Your task to perform on an android device: star an email in the gmail app Image 0: 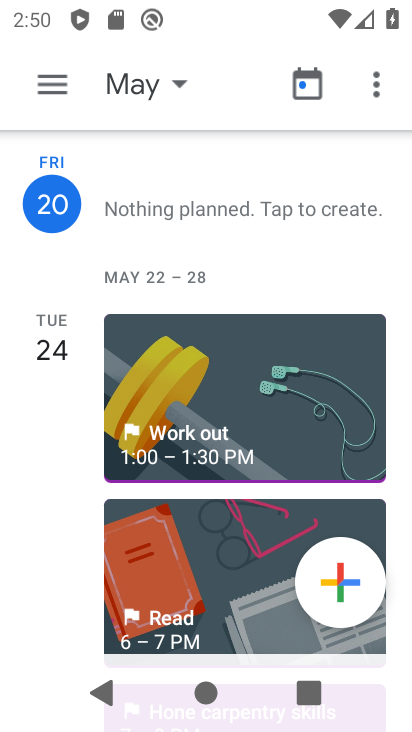
Step 0: press home button
Your task to perform on an android device: star an email in the gmail app Image 1: 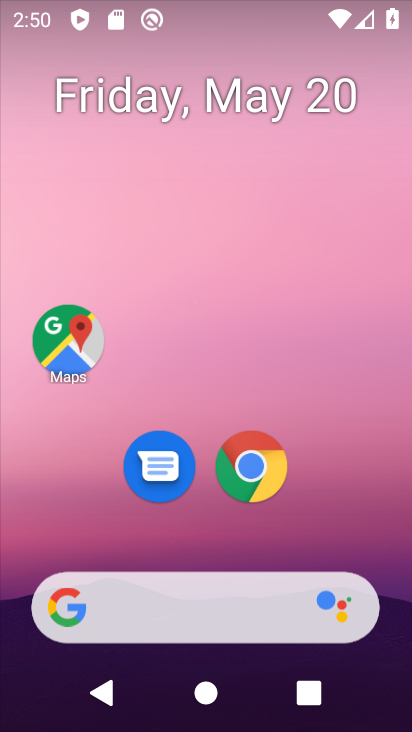
Step 1: drag from (200, 441) to (218, 104)
Your task to perform on an android device: star an email in the gmail app Image 2: 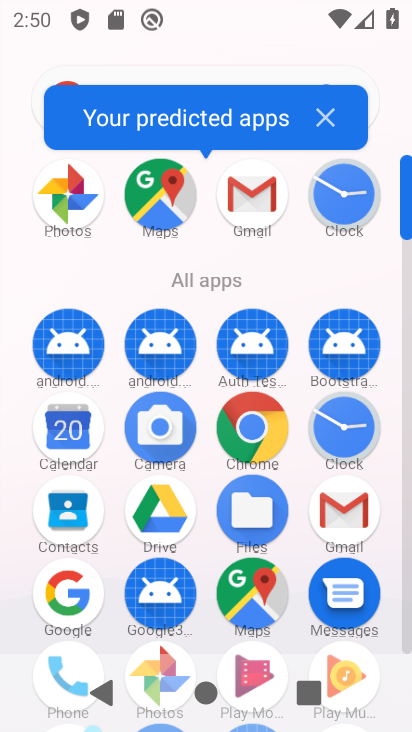
Step 2: click (235, 198)
Your task to perform on an android device: star an email in the gmail app Image 3: 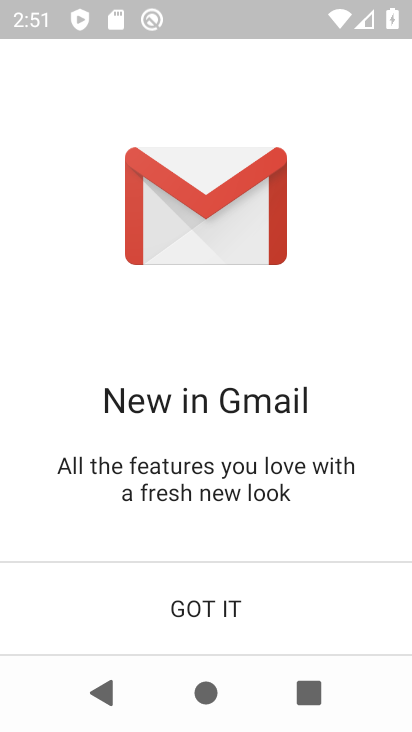
Step 3: click (233, 597)
Your task to perform on an android device: star an email in the gmail app Image 4: 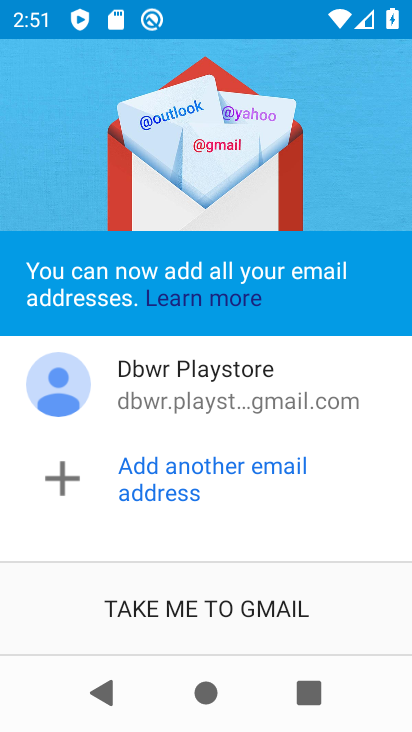
Step 4: click (172, 606)
Your task to perform on an android device: star an email in the gmail app Image 5: 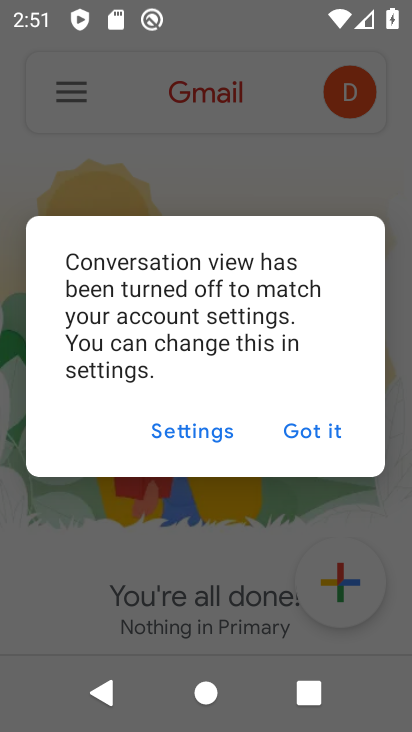
Step 5: click (313, 415)
Your task to perform on an android device: star an email in the gmail app Image 6: 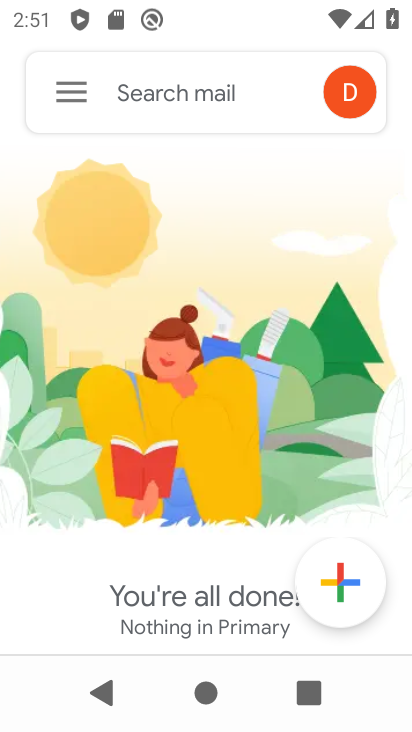
Step 6: click (79, 87)
Your task to perform on an android device: star an email in the gmail app Image 7: 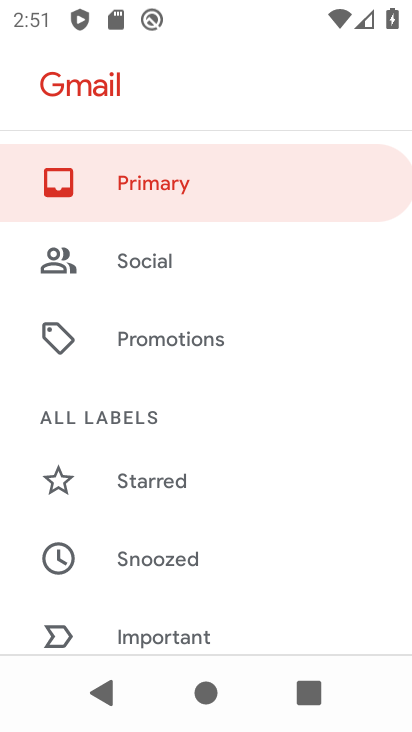
Step 7: click (150, 486)
Your task to perform on an android device: star an email in the gmail app Image 8: 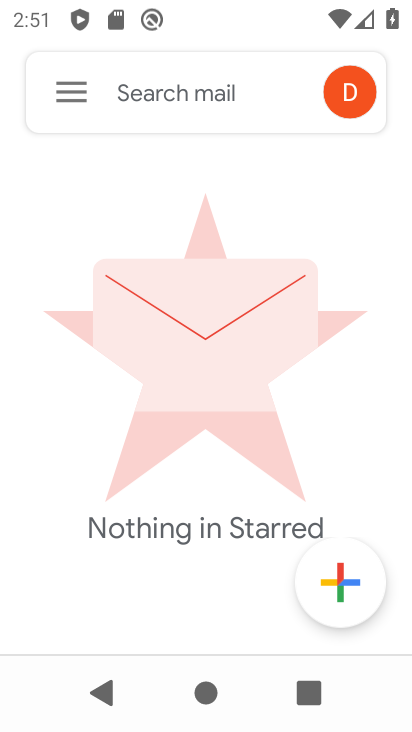
Step 8: task complete